Your task to perform on an android device: Clear the cart on bestbuy.com. Search for "razer blade" on bestbuy.com, select the first entry, add it to the cart, then select checkout. Image 0: 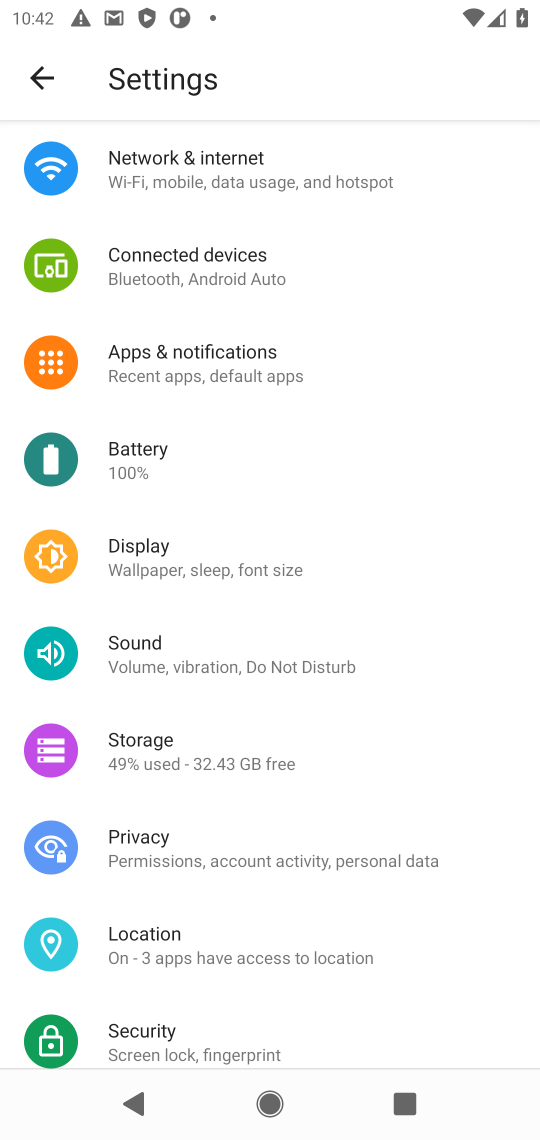
Step 0: press home button
Your task to perform on an android device: Clear the cart on bestbuy.com. Search for "razer blade" on bestbuy.com, select the first entry, add it to the cart, then select checkout. Image 1: 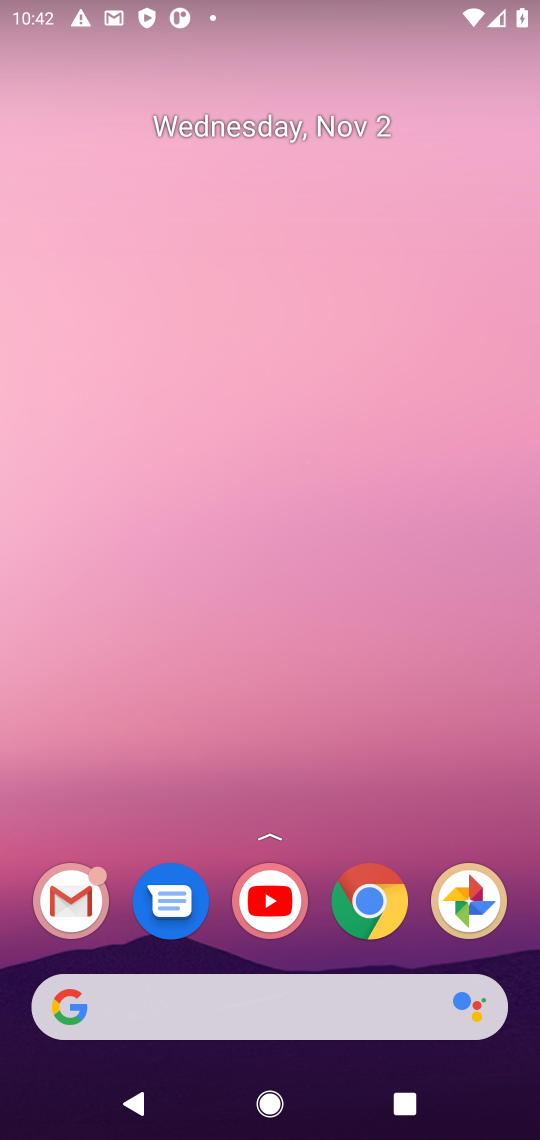
Step 1: click (288, 997)
Your task to perform on an android device: Clear the cart on bestbuy.com. Search for "razer blade" on bestbuy.com, select the first entry, add it to the cart, then select checkout. Image 2: 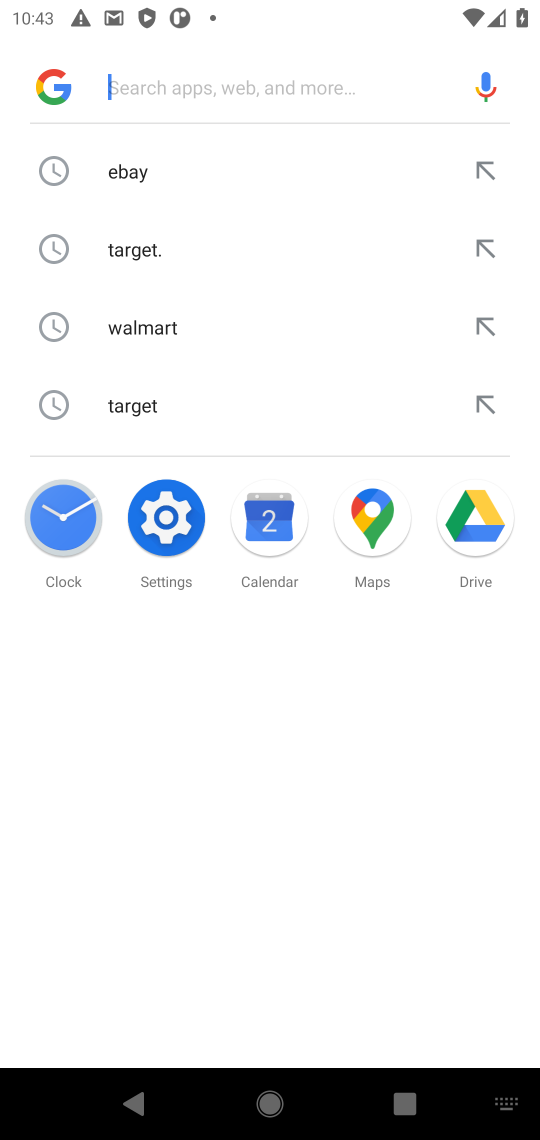
Step 2: type "bestbuy.com"
Your task to perform on an android device: Clear the cart on bestbuy.com. Search for "razer blade" on bestbuy.com, select the first entry, add it to the cart, then select checkout. Image 3: 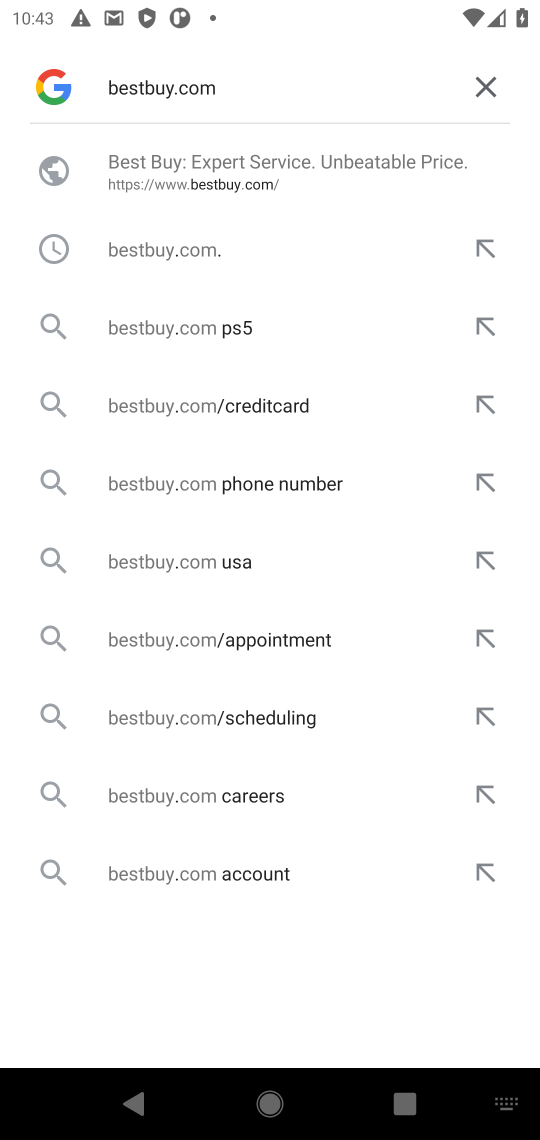
Step 3: click (181, 164)
Your task to perform on an android device: Clear the cart on bestbuy.com. Search for "razer blade" on bestbuy.com, select the first entry, add it to the cart, then select checkout. Image 4: 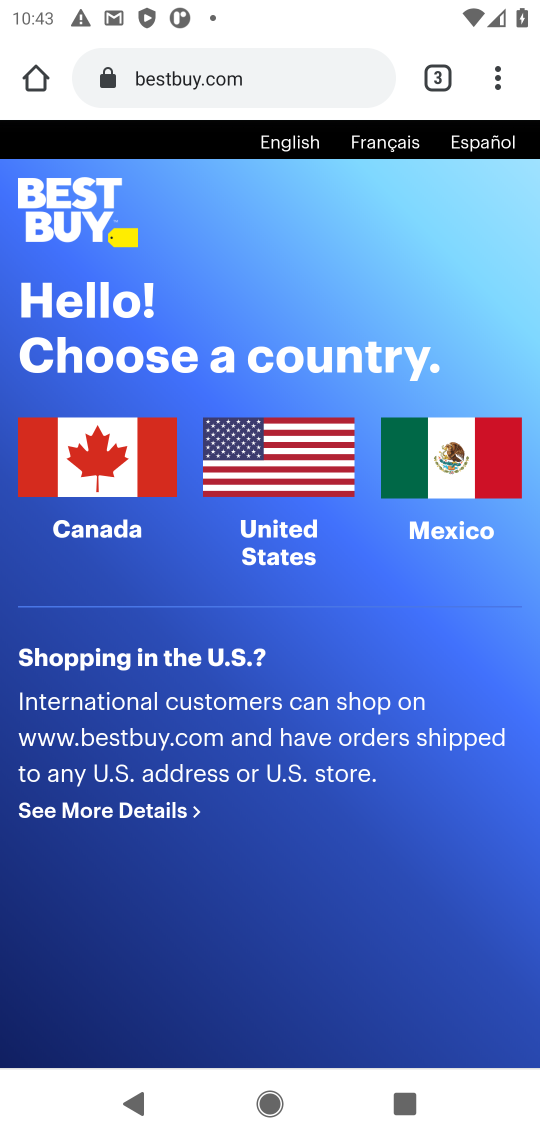
Step 4: click (280, 453)
Your task to perform on an android device: Clear the cart on bestbuy.com. Search for "razer blade" on bestbuy.com, select the first entry, add it to the cart, then select checkout. Image 5: 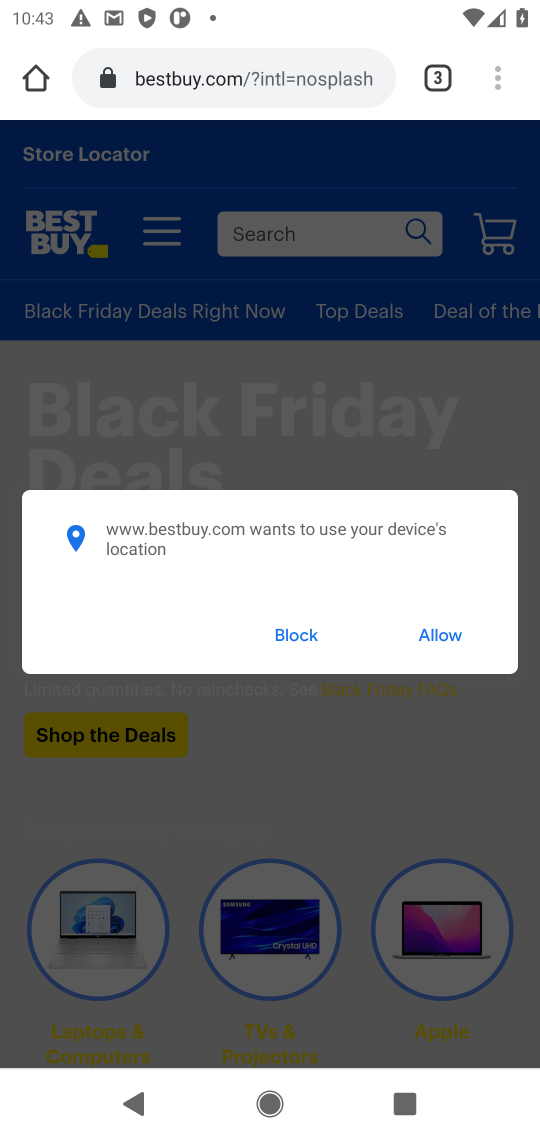
Step 5: click (429, 631)
Your task to perform on an android device: Clear the cart on bestbuy.com. Search for "razer blade" on bestbuy.com, select the first entry, add it to the cart, then select checkout. Image 6: 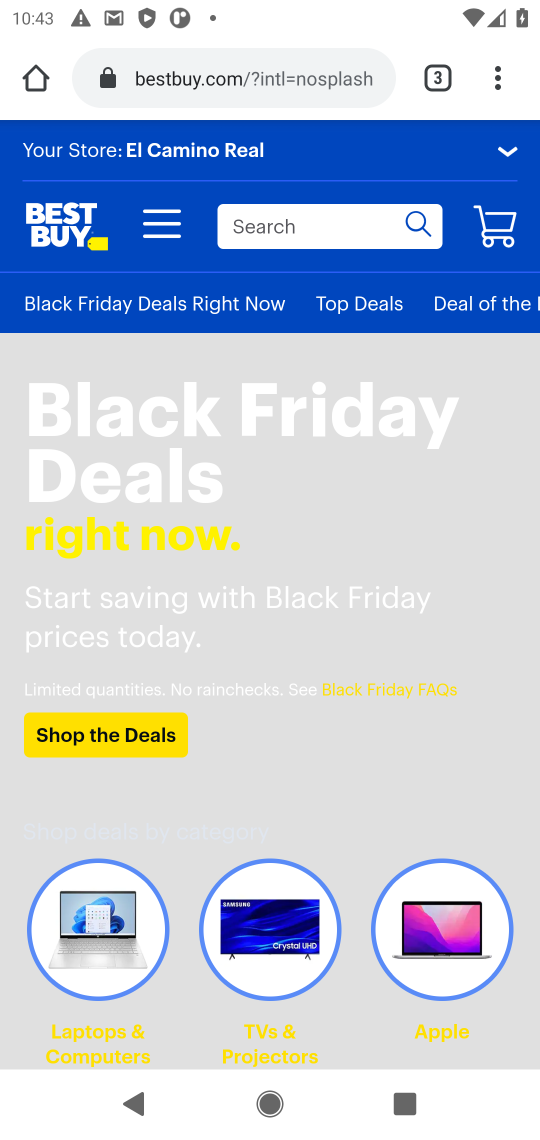
Step 6: click (264, 223)
Your task to perform on an android device: Clear the cart on bestbuy.com. Search for "razer blade" on bestbuy.com, select the first entry, add it to the cart, then select checkout. Image 7: 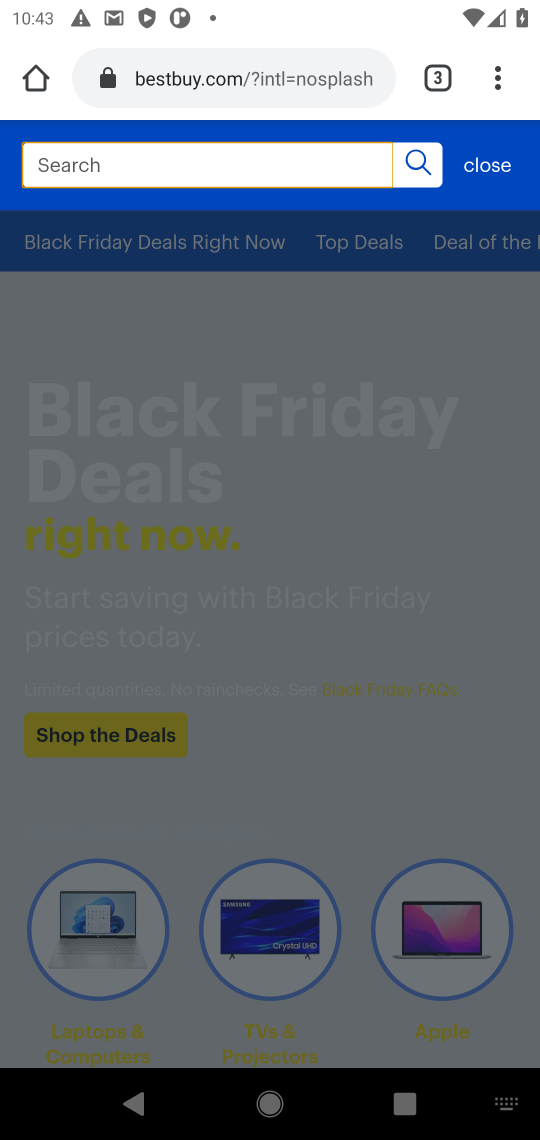
Step 7: type "razer blade"
Your task to perform on an android device: Clear the cart on bestbuy.com. Search for "razer blade" on bestbuy.com, select the first entry, add it to the cart, then select checkout. Image 8: 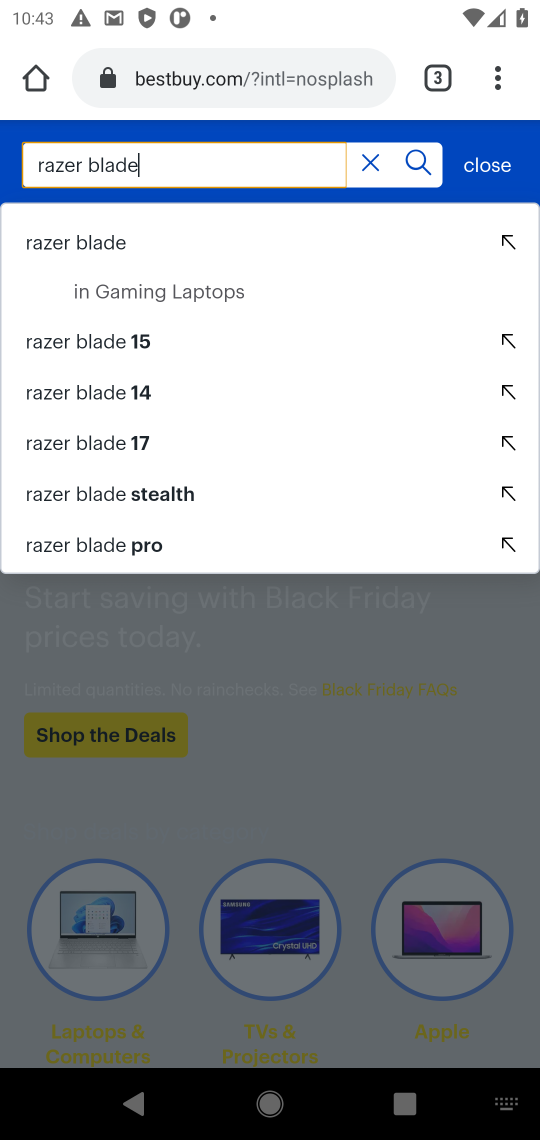
Step 8: click (99, 236)
Your task to perform on an android device: Clear the cart on bestbuy.com. Search for "razer blade" on bestbuy.com, select the first entry, add it to the cart, then select checkout. Image 9: 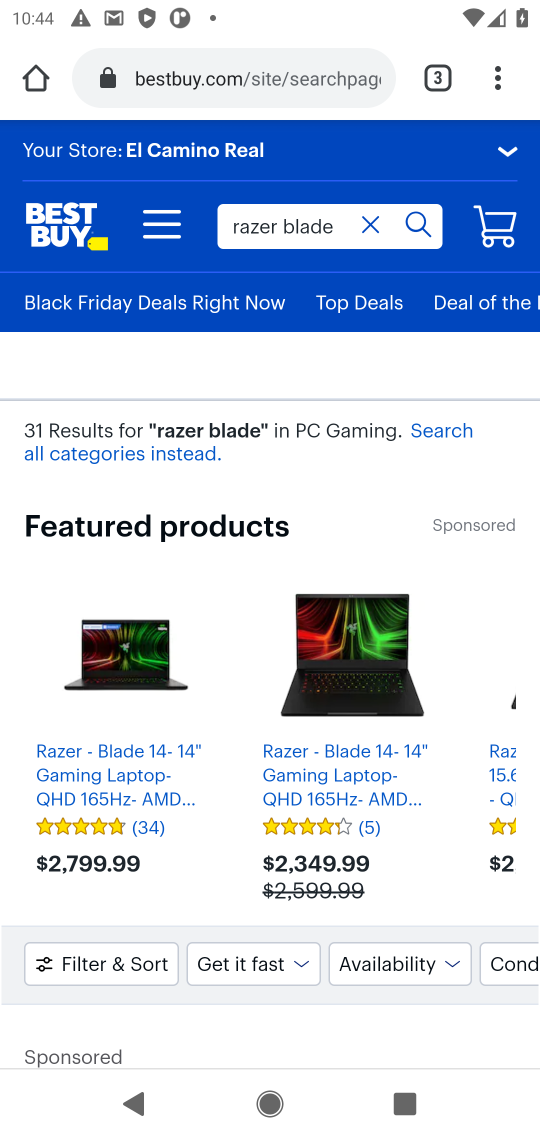
Step 9: drag from (227, 839) to (208, 476)
Your task to perform on an android device: Clear the cart on bestbuy.com. Search for "razer blade" on bestbuy.com, select the first entry, add it to the cart, then select checkout. Image 10: 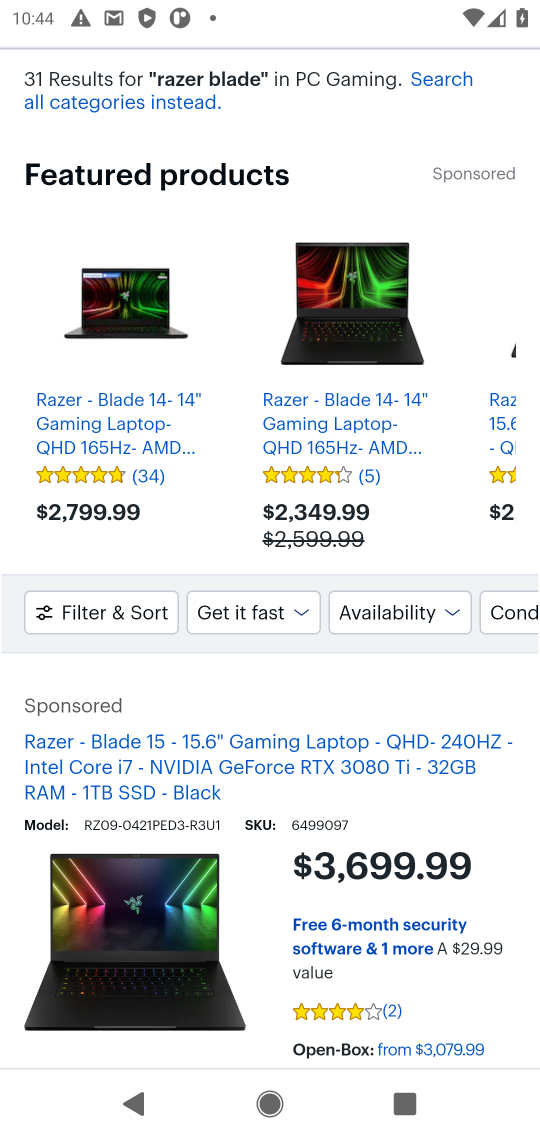
Step 10: drag from (516, 871) to (453, 581)
Your task to perform on an android device: Clear the cart on bestbuy.com. Search for "razer blade" on bestbuy.com, select the first entry, add it to the cart, then select checkout. Image 11: 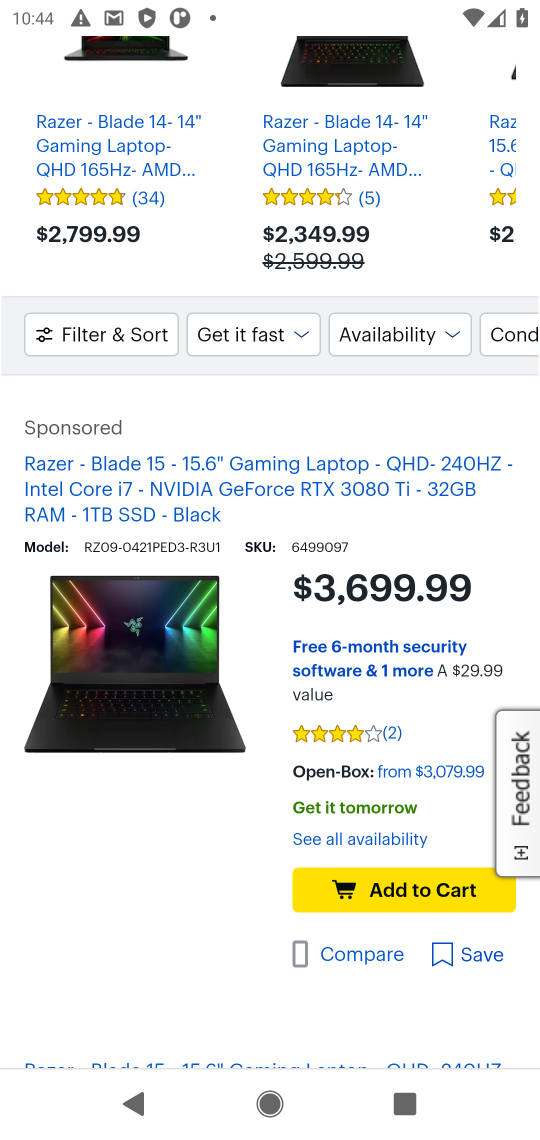
Step 11: click (394, 888)
Your task to perform on an android device: Clear the cart on bestbuy.com. Search for "razer blade" on bestbuy.com, select the first entry, add it to the cart, then select checkout. Image 12: 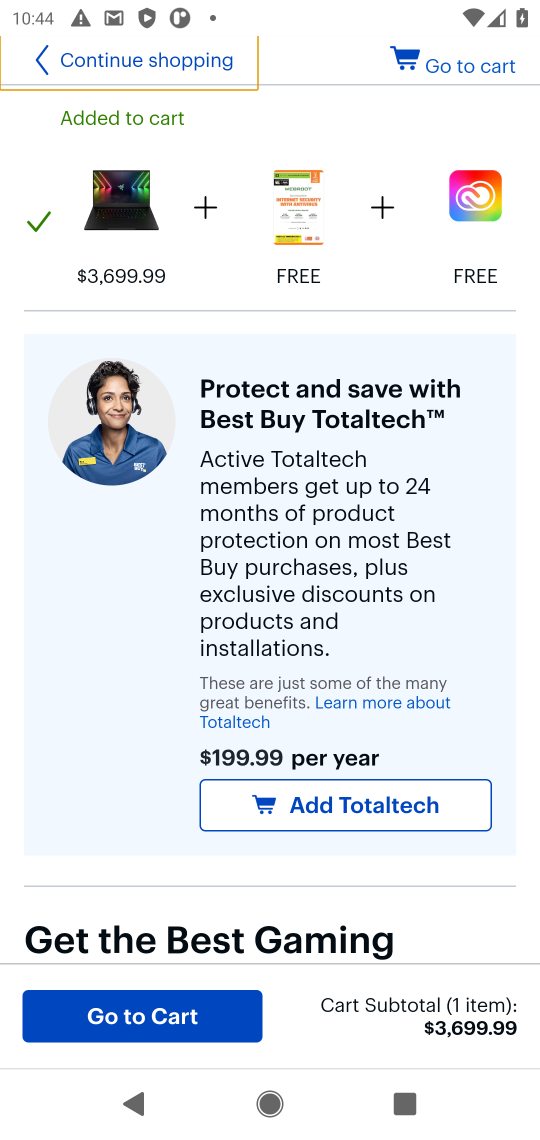
Step 12: click (125, 1032)
Your task to perform on an android device: Clear the cart on bestbuy.com. Search for "razer blade" on bestbuy.com, select the first entry, add it to the cart, then select checkout. Image 13: 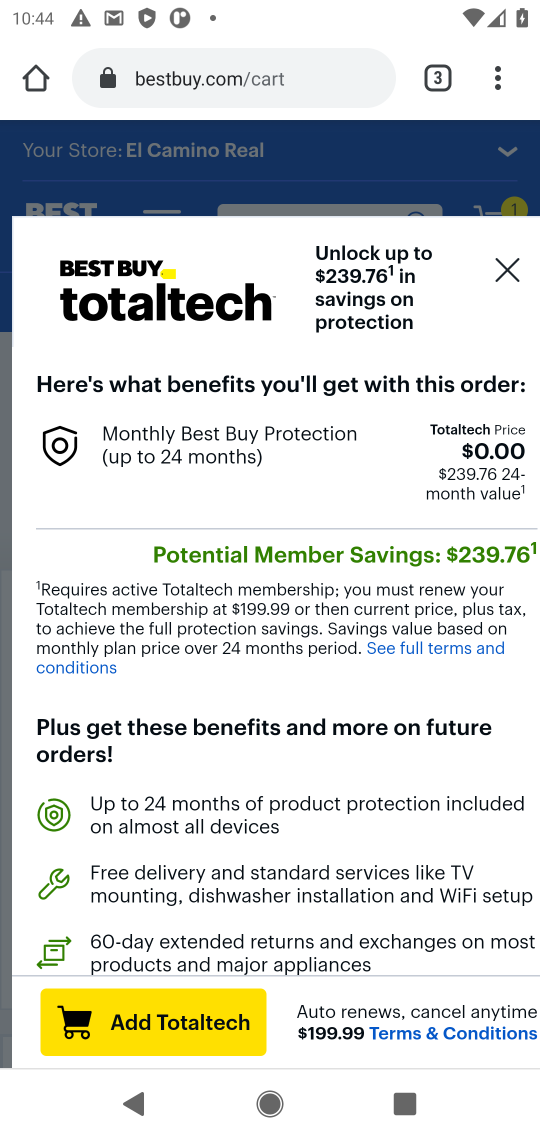
Step 13: click (505, 268)
Your task to perform on an android device: Clear the cart on bestbuy.com. Search for "razer blade" on bestbuy.com, select the first entry, add it to the cart, then select checkout. Image 14: 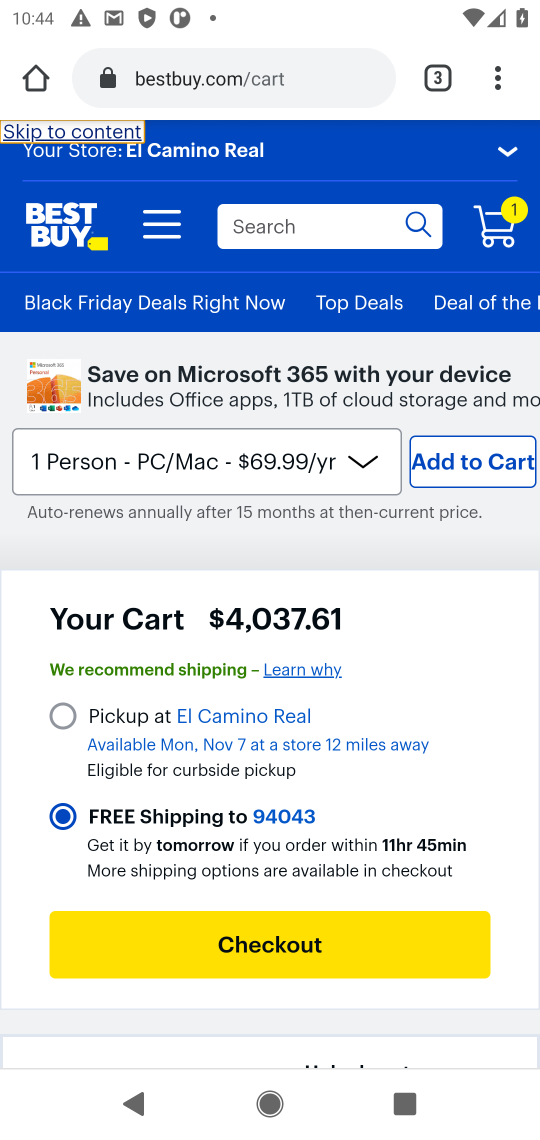
Step 14: click (232, 937)
Your task to perform on an android device: Clear the cart on bestbuy.com. Search for "razer blade" on bestbuy.com, select the first entry, add it to the cart, then select checkout. Image 15: 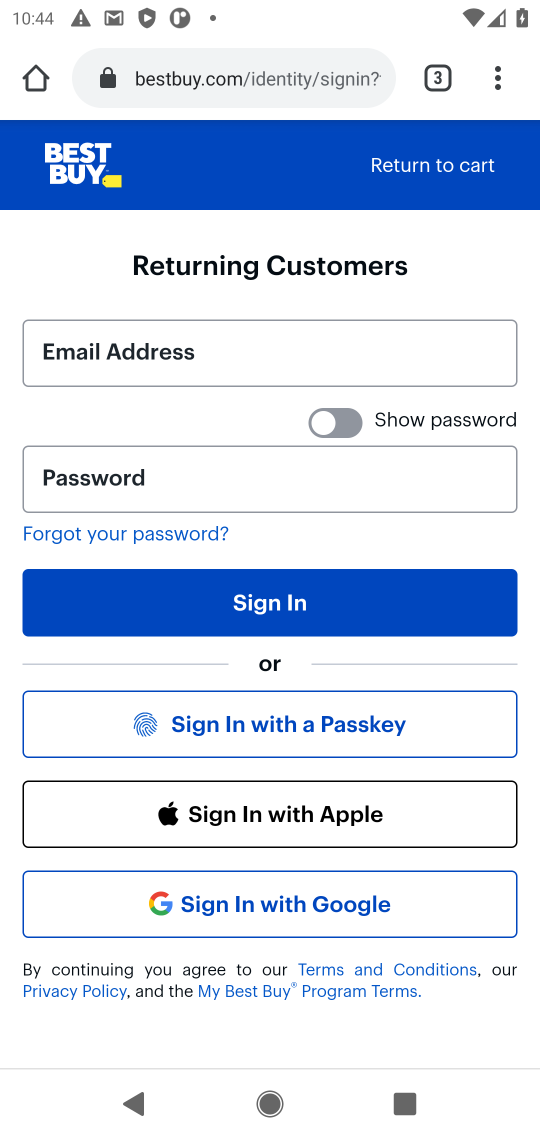
Step 15: task complete